Your task to perform on an android device: Open Google Chrome and open the bookmarks view Image 0: 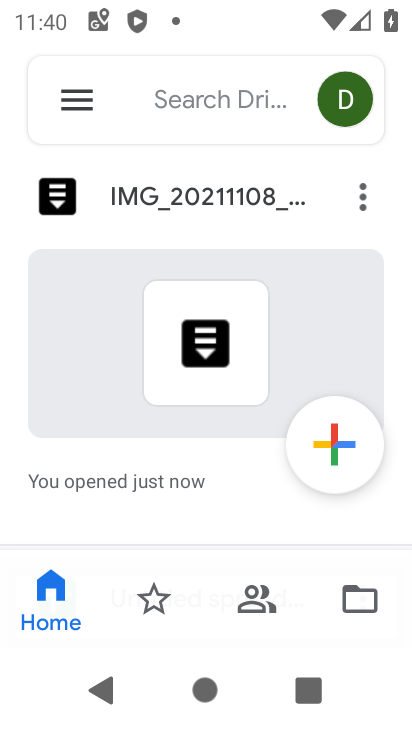
Step 0: press home button
Your task to perform on an android device: Open Google Chrome and open the bookmarks view Image 1: 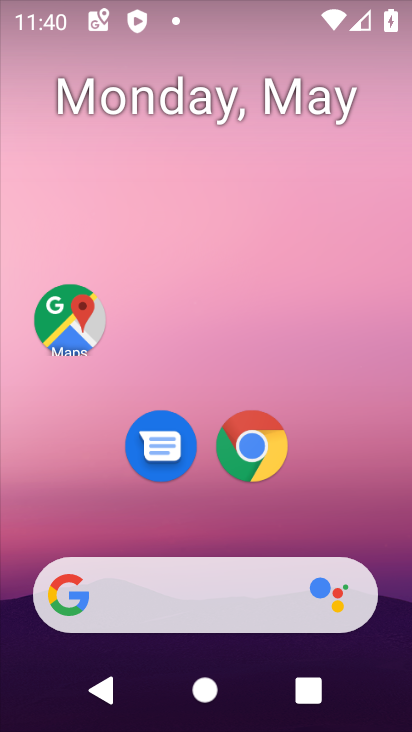
Step 1: drag from (310, 505) to (289, 164)
Your task to perform on an android device: Open Google Chrome and open the bookmarks view Image 2: 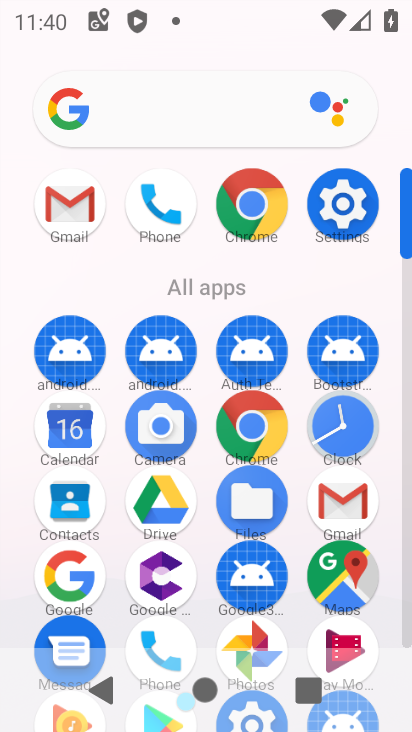
Step 2: click (243, 205)
Your task to perform on an android device: Open Google Chrome and open the bookmarks view Image 3: 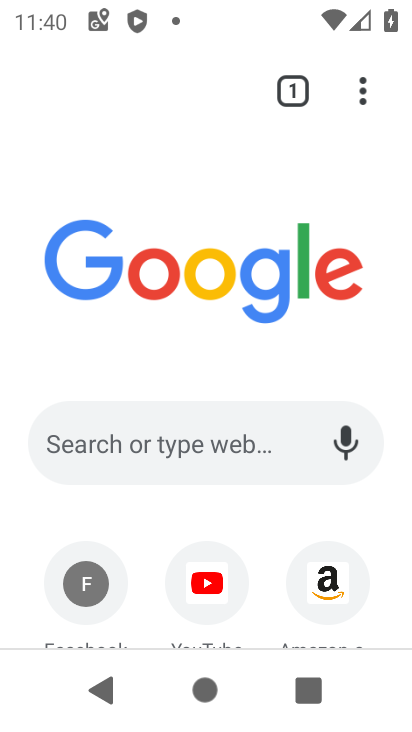
Step 3: click (368, 85)
Your task to perform on an android device: Open Google Chrome and open the bookmarks view Image 4: 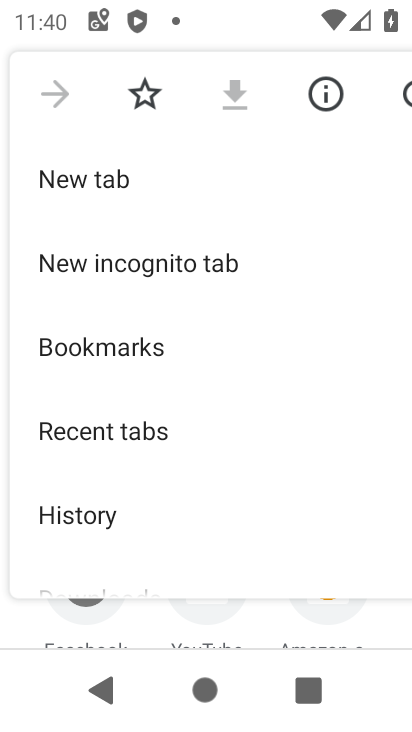
Step 4: drag from (122, 514) to (148, 326)
Your task to perform on an android device: Open Google Chrome and open the bookmarks view Image 5: 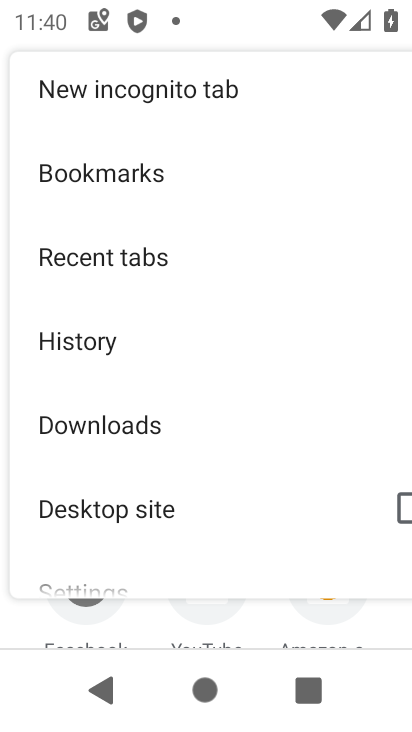
Step 5: click (144, 164)
Your task to perform on an android device: Open Google Chrome and open the bookmarks view Image 6: 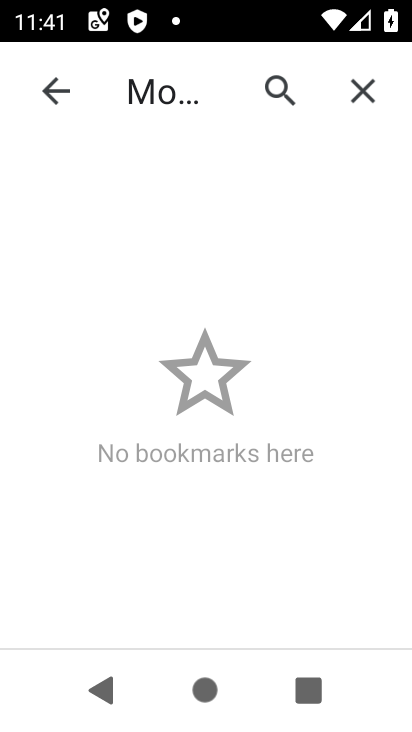
Step 6: task complete